Your task to perform on an android device: turn on showing notifications on the lock screen Image 0: 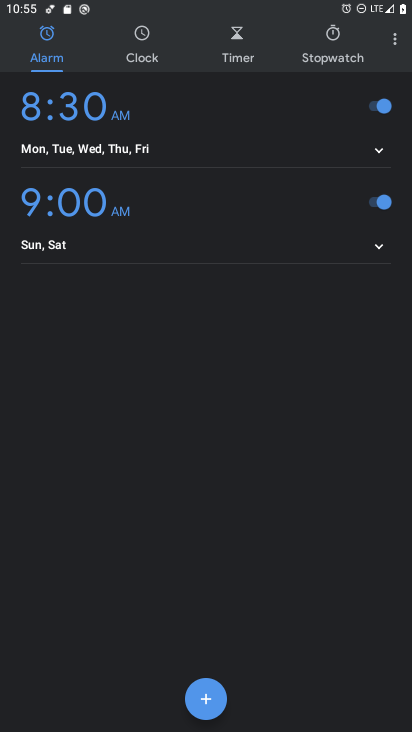
Step 0: press home button
Your task to perform on an android device: turn on showing notifications on the lock screen Image 1: 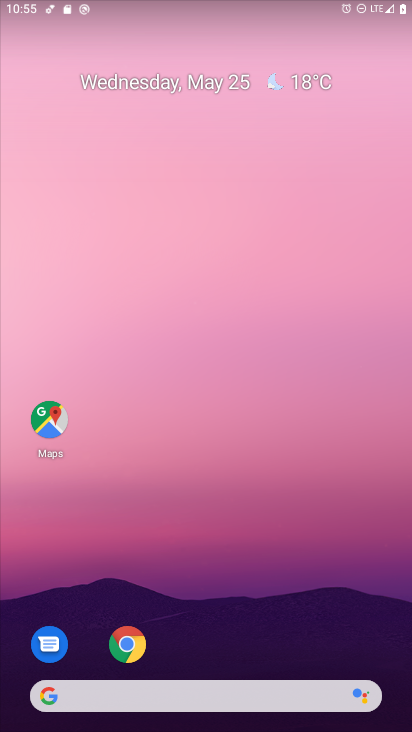
Step 1: drag from (212, 662) to (261, 1)
Your task to perform on an android device: turn on showing notifications on the lock screen Image 2: 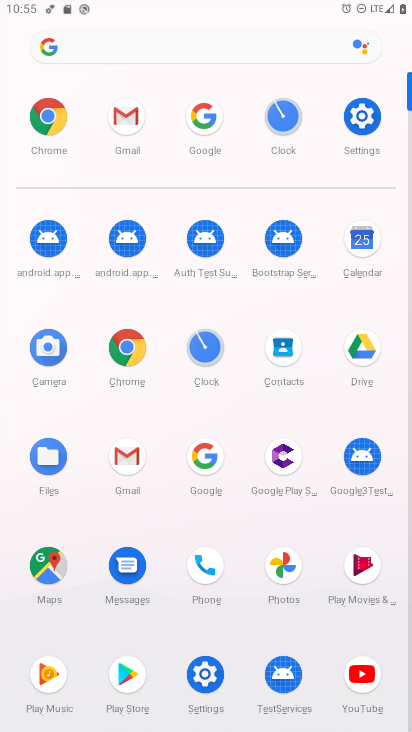
Step 2: click (357, 109)
Your task to perform on an android device: turn on showing notifications on the lock screen Image 3: 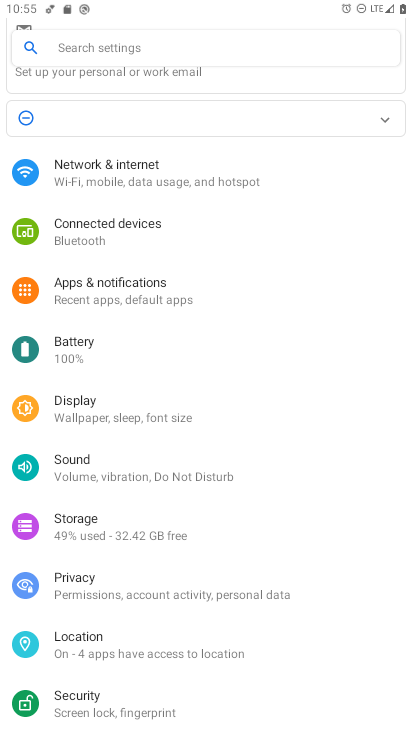
Step 3: click (174, 283)
Your task to perform on an android device: turn on showing notifications on the lock screen Image 4: 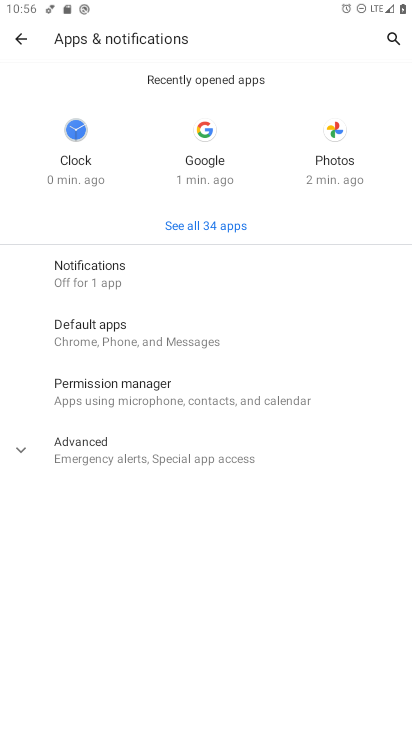
Step 4: click (135, 274)
Your task to perform on an android device: turn on showing notifications on the lock screen Image 5: 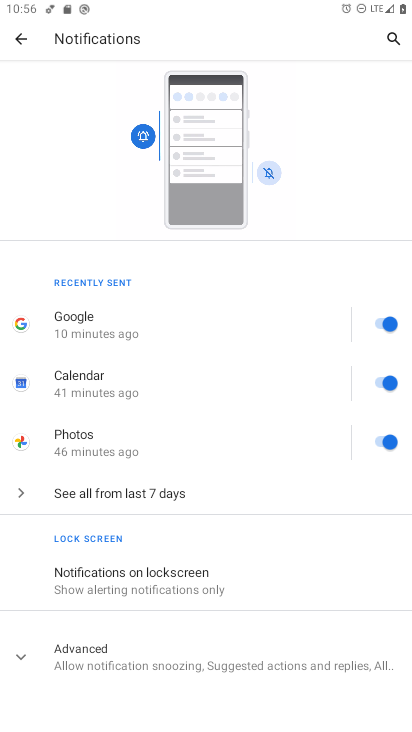
Step 5: click (229, 573)
Your task to perform on an android device: turn on showing notifications on the lock screen Image 6: 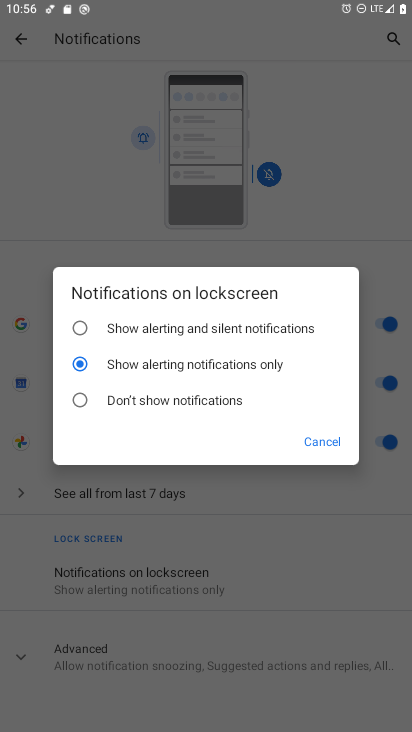
Step 6: click (80, 325)
Your task to perform on an android device: turn on showing notifications on the lock screen Image 7: 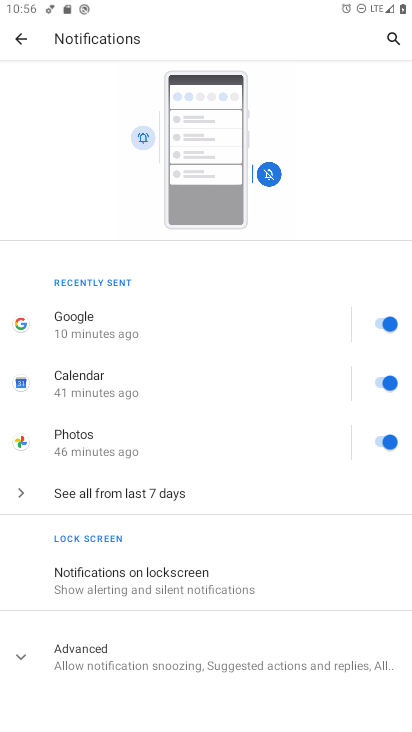
Step 7: task complete